Your task to perform on an android device: turn off translation in the chrome app Image 0: 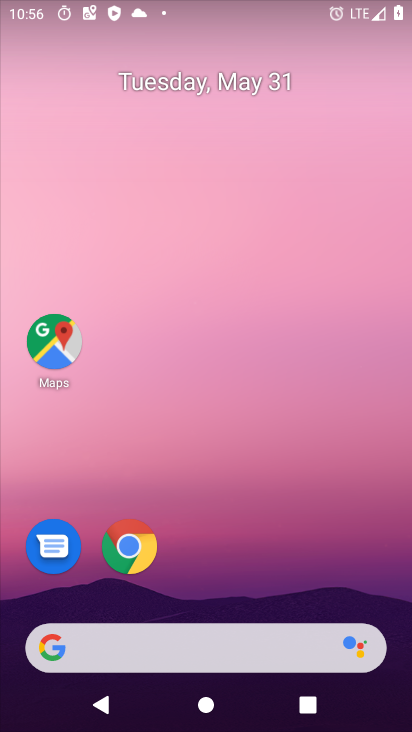
Step 0: click (136, 537)
Your task to perform on an android device: turn off translation in the chrome app Image 1: 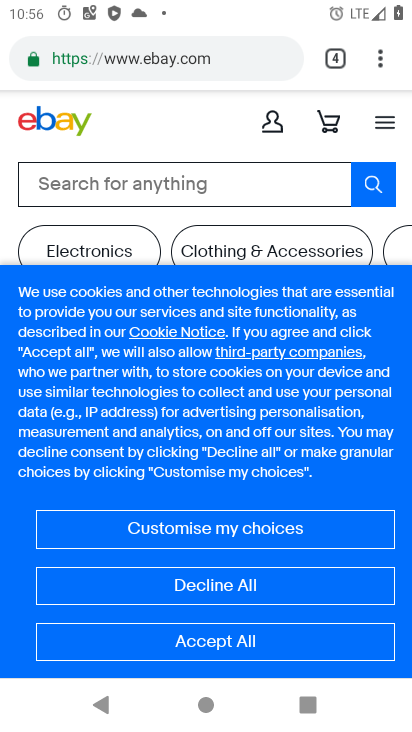
Step 1: click (375, 54)
Your task to perform on an android device: turn off translation in the chrome app Image 2: 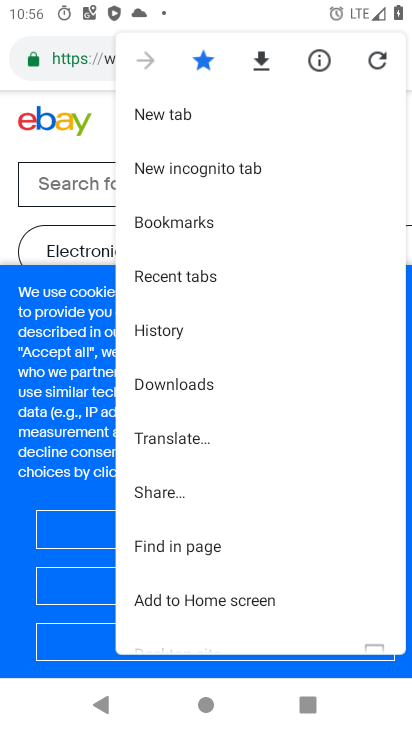
Step 2: click (185, 450)
Your task to perform on an android device: turn off translation in the chrome app Image 3: 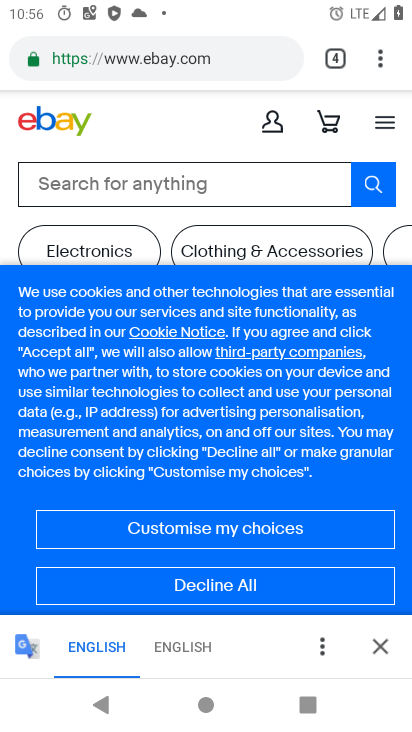
Step 3: click (329, 651)
Your task to perform on an android device: turn off translation in the chrome app Image 4: 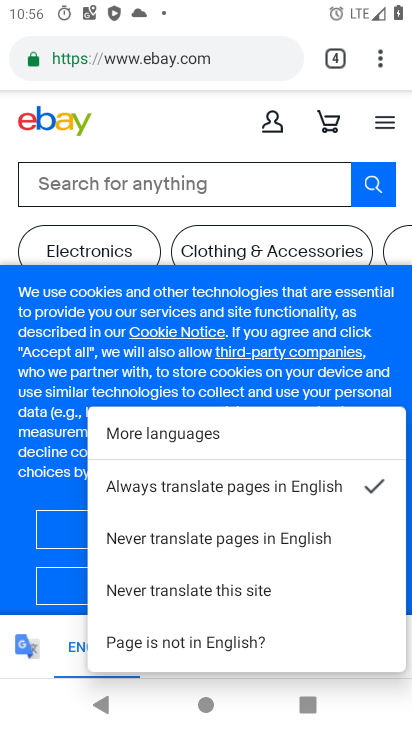
Step 4: click (193, 584)
Your task to perform on an android device: turn off translation in the chrome app Image 5: 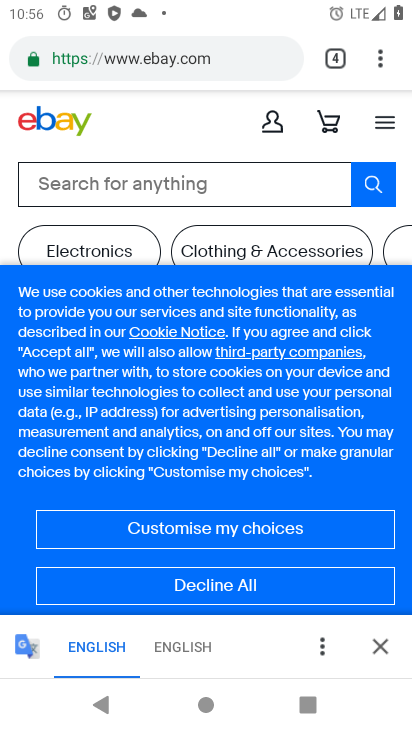
Step 5: task complete